Your task to perform on an android device: change the upload size in google photos Image 0: 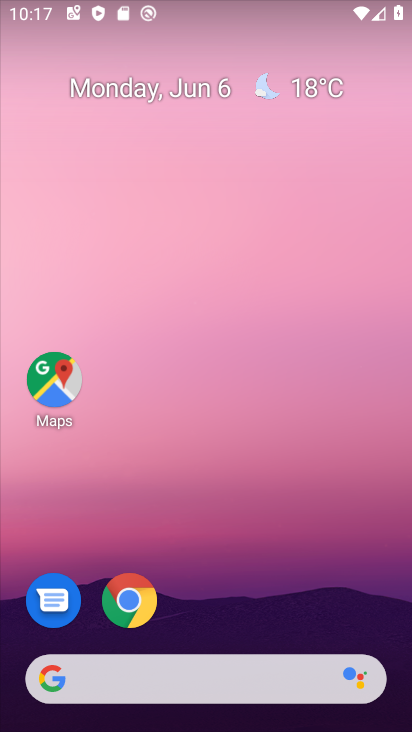
Step 0: drag from (286, 551) to (241, 34)
Your task to perform on an android device: change the upload size in google photos Image 1: 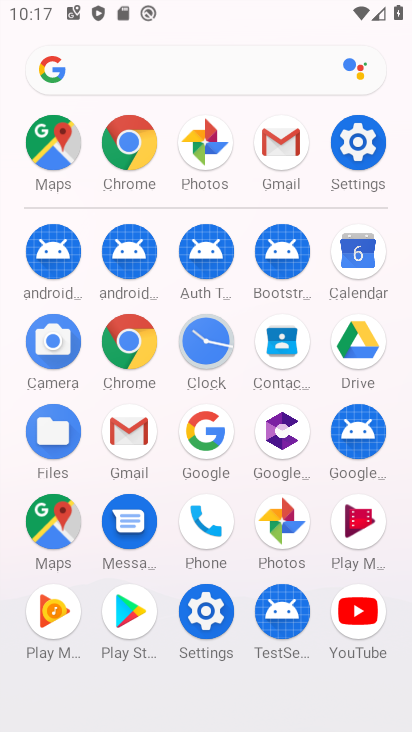
Step 1: click (282, 522)
Your task to perform on an android device: change the upload size in google photos Image 2: 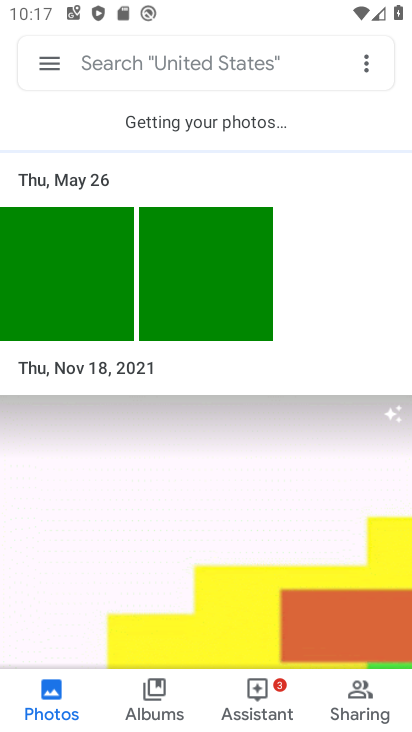
Step 2: click (43, 57)
Your task to perform on an android device: change the upload size in google photos Image 3: 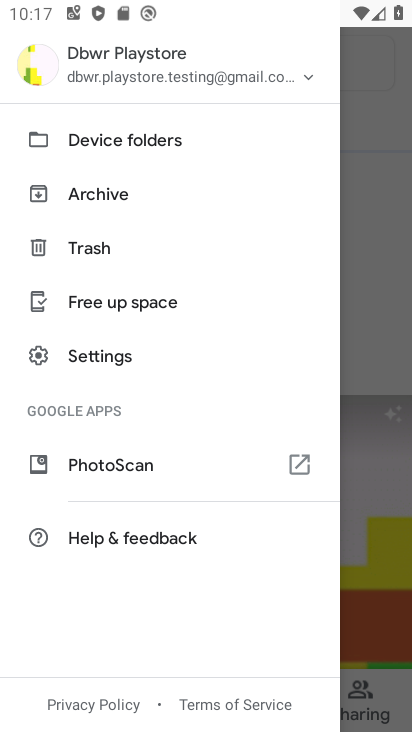
Step 3: click (130, 355)
Your task to perform on an android device: change the upload size in google photos Image 4: 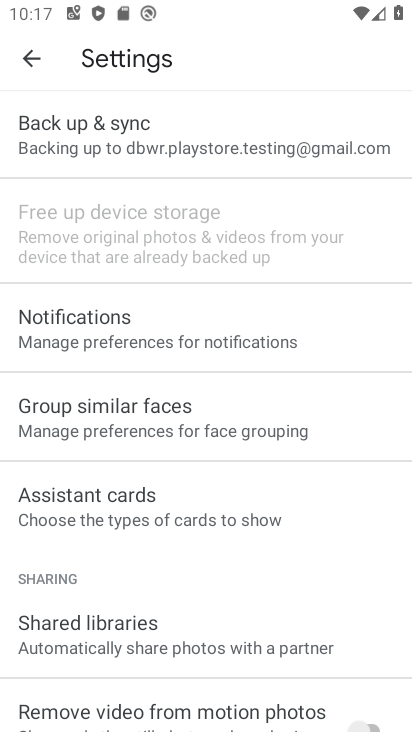
Step 4: click (215, 141)
Your task to perform on an android device: change the upload size in google photos Image 5: 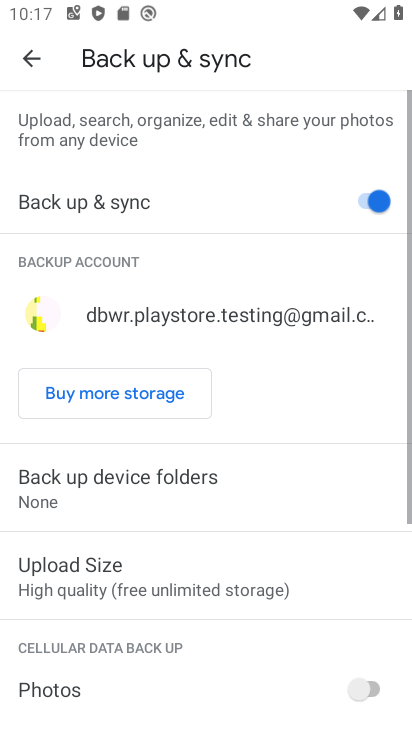
Step 5: click (218, 567)
Your task to perform on an android device: change the upload size in google photos Image 6: 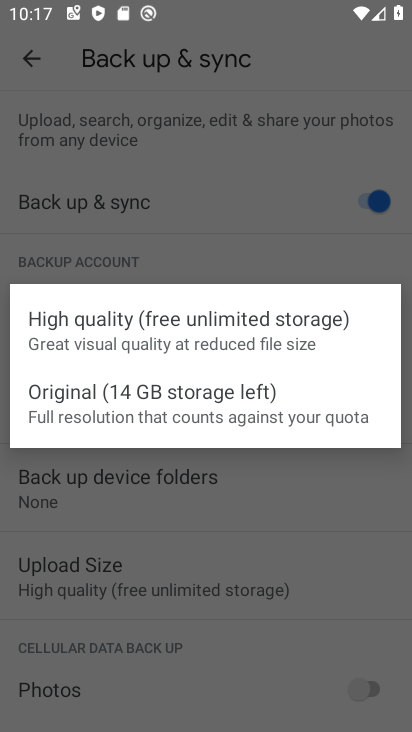
Step 6: click (241, 411)
Your task to perform on an android device: change the upload size in google photos Image 7: 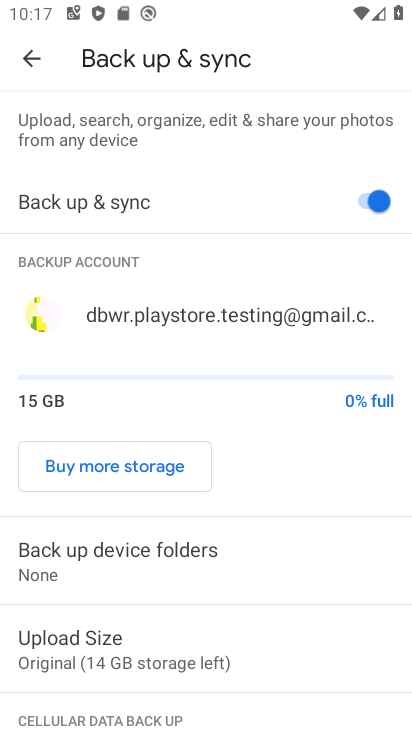
Step 7: task complete